Your task to perform on an android device: Open Chrome and go to settings Image 0: 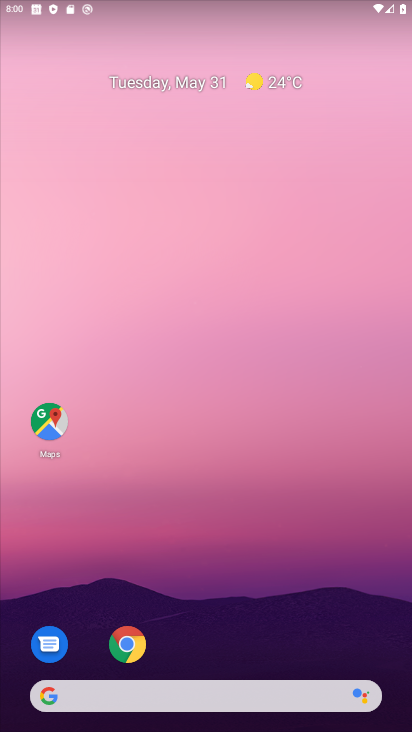
Step 0: click (131, 640)
Your task to perform on an android device: Open Chrome and go to settings Image 1: 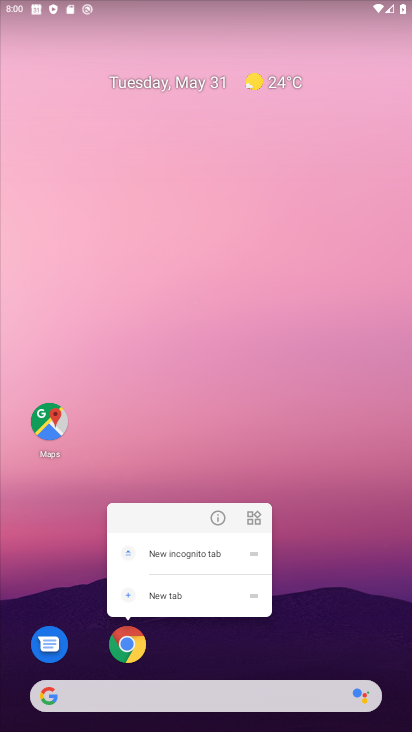
Step 1: click (219, 516)
Your task to perform on an android device: Open Chrome and go to settings Image 2: 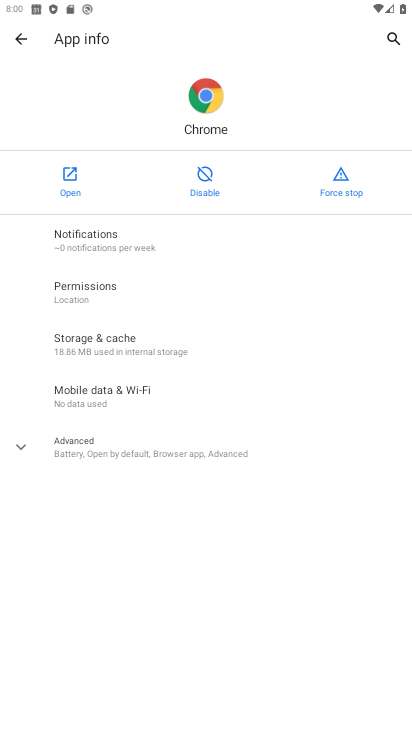
Step 2: click (60, 180)
Your task to perform on an android device: Open Chrome and go to settings Image 3: 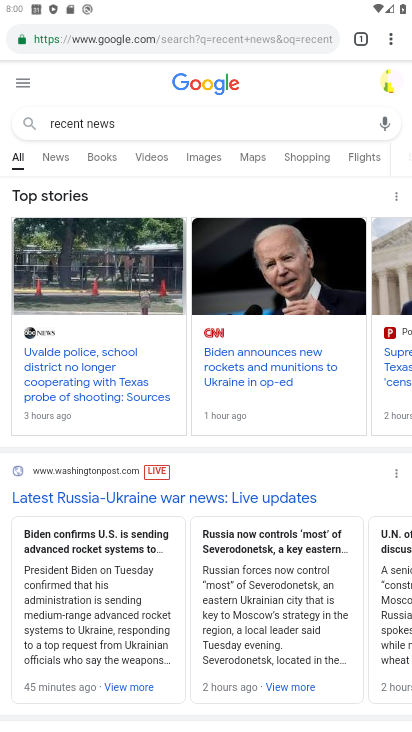
Step 3: click (390, 36)
Your task to perform on an android device: Open Chrome and go to settings Image 4: 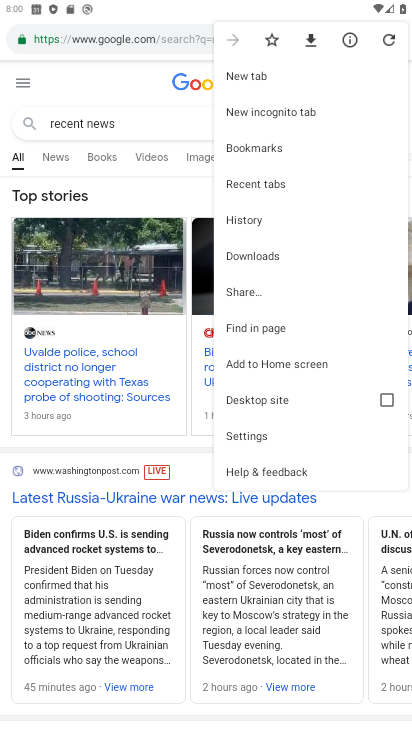
Step 4: click (247, 438)
Your task to perform on an android device: Open Chrome and go to settings Image 5: 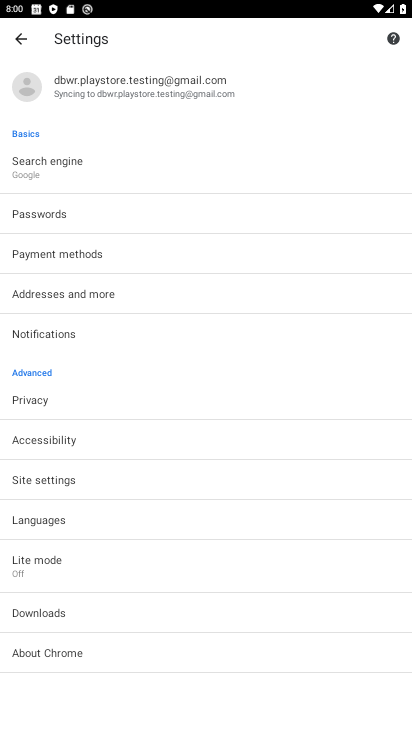
Step 5: task complete